Your task to perform on an android device: install app "Duolingo: language lessons" Image 0: 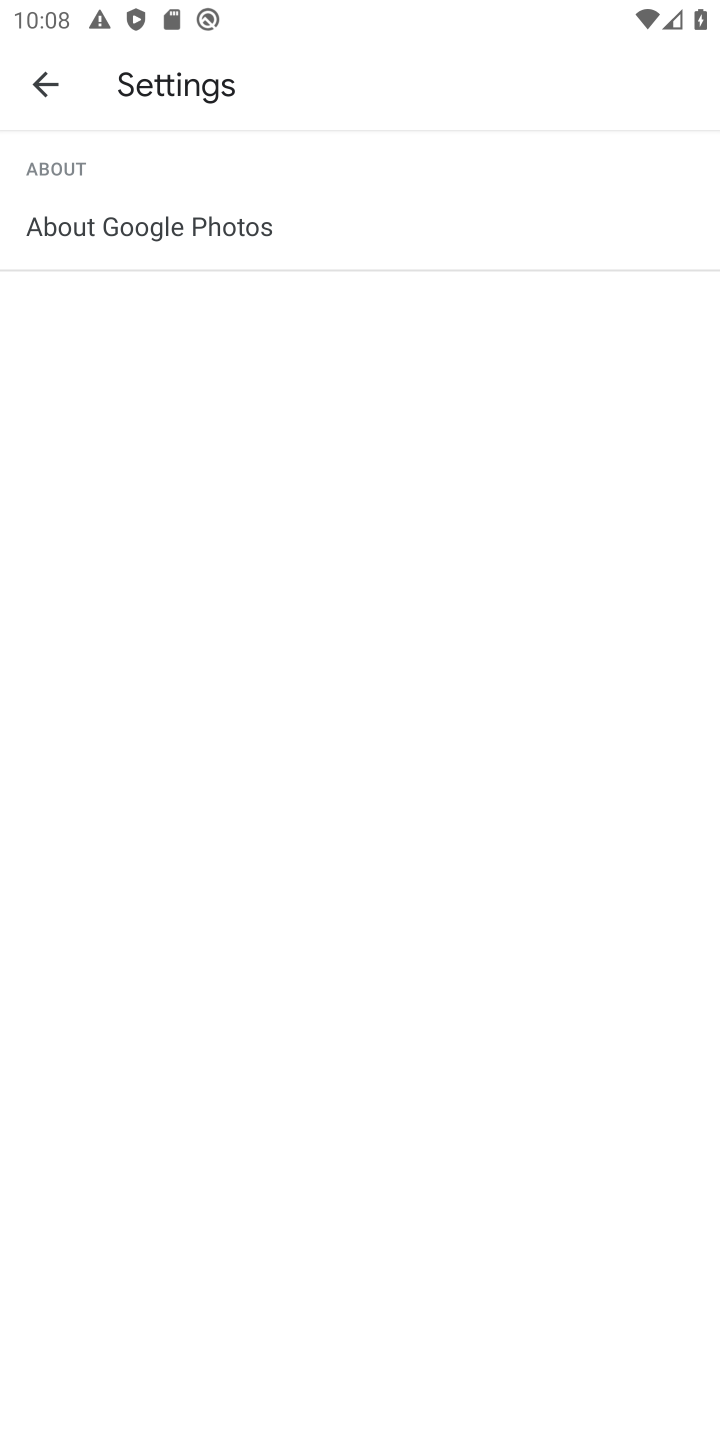
Step 0: press home button
Your task to perform on an android device: install app "Duolingo: language lessons" Image 1: 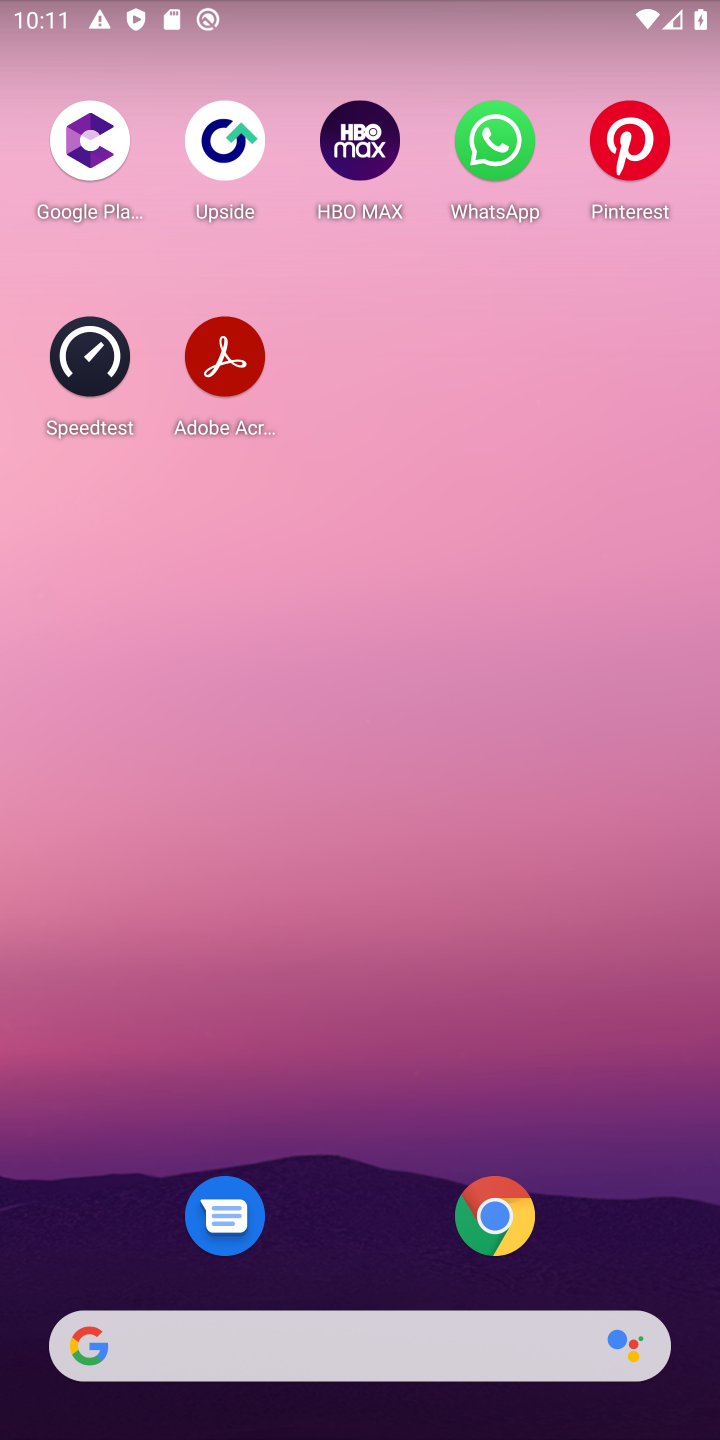
Step 1: drag from (455, 1282) to (543, 196)
Your task to perform on an android device: install app "Duolingo: language lessons" Image 2: 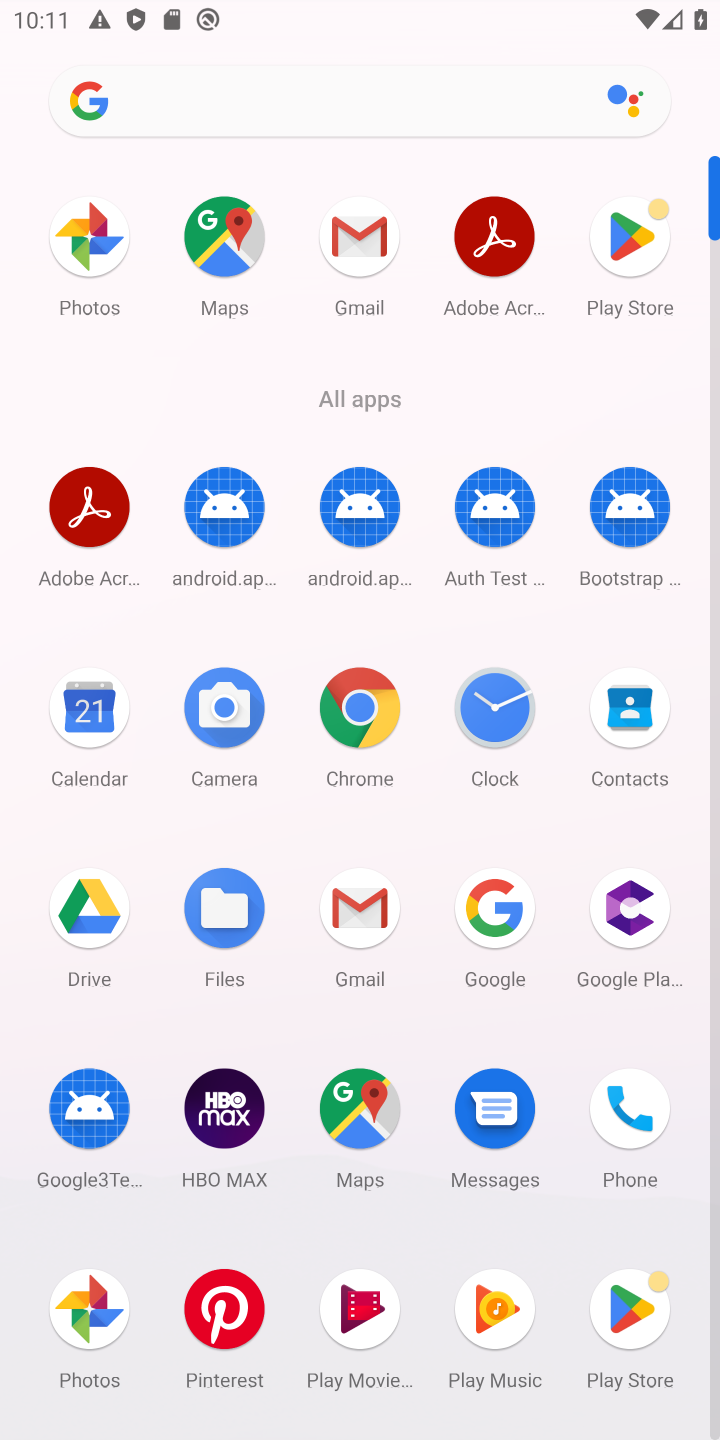
Step 2: click (638, 244)
Your task to perform on an android device: install app "Duolingo: language lessons" Image 3: 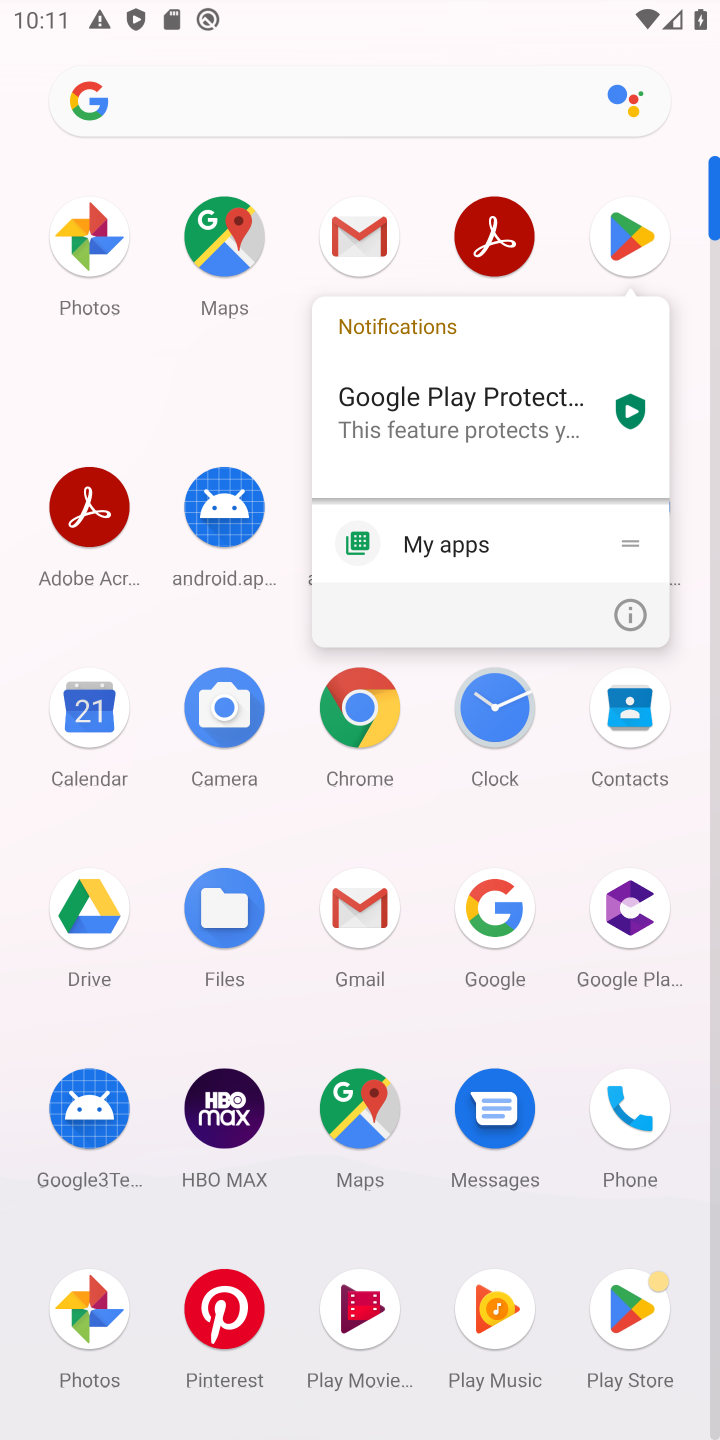
Step 3: click (638, 246)
Your task to perform on an android device: install app "Duolingo: language lessons" Image 4: 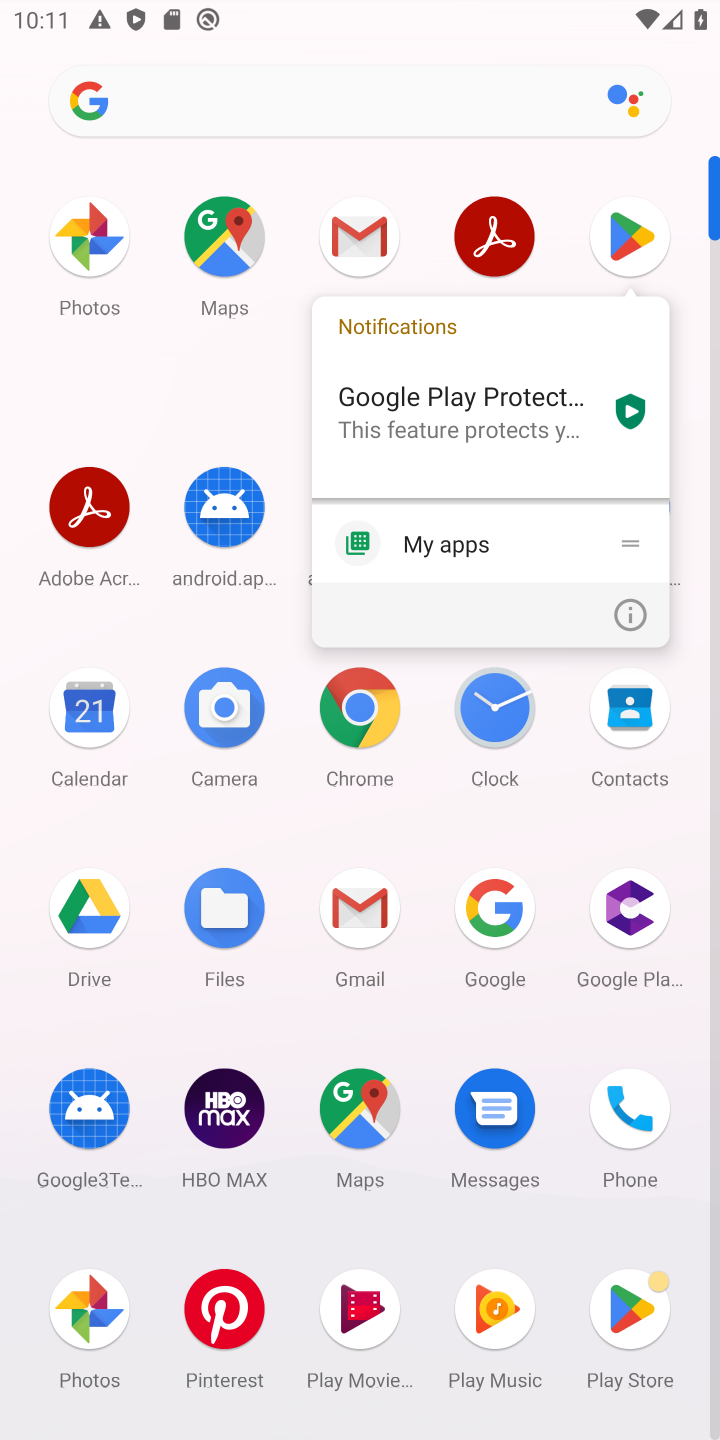
Step 4: click (638, 246)
Your task to perform on an android device: install app "Duolingo: language lessons" Image 5: 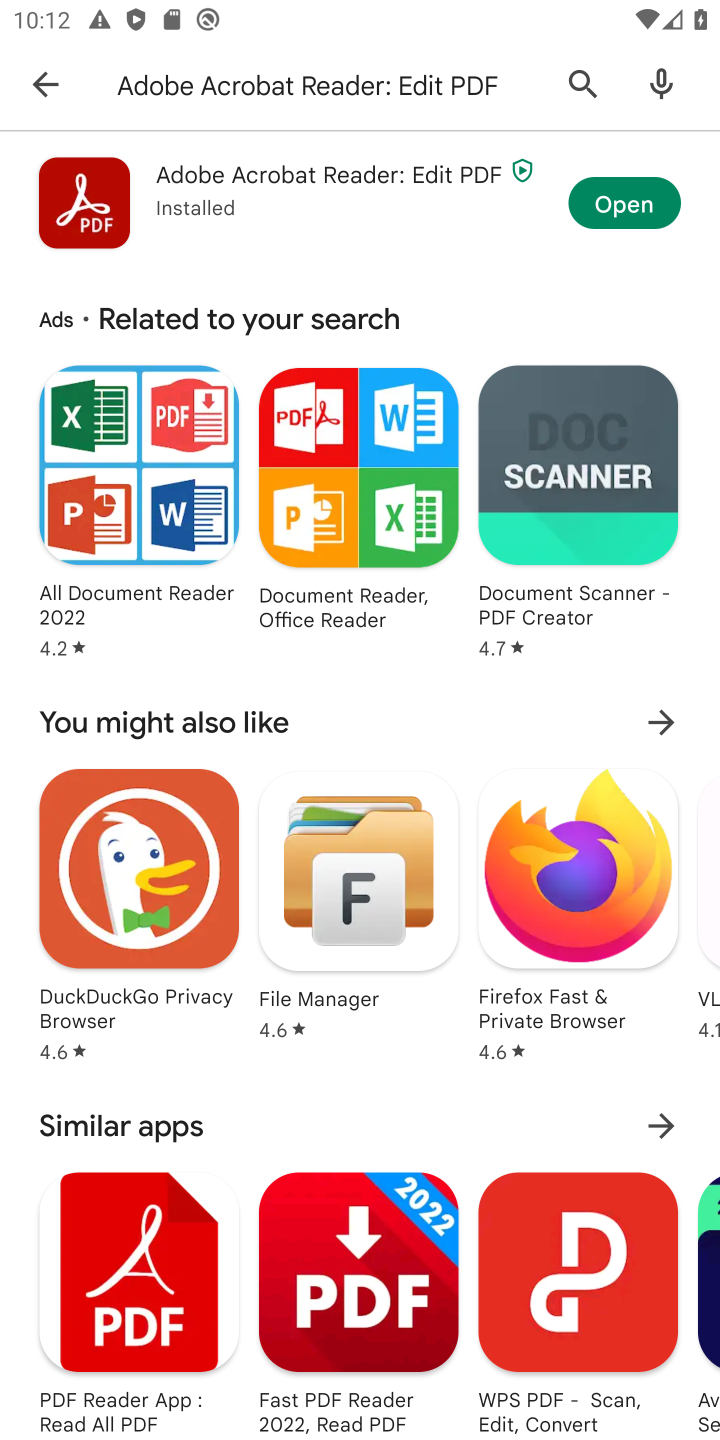
Step 5: press back button
Your task to perform on an android device: install app "Duolingo: language lessons" Image 6: 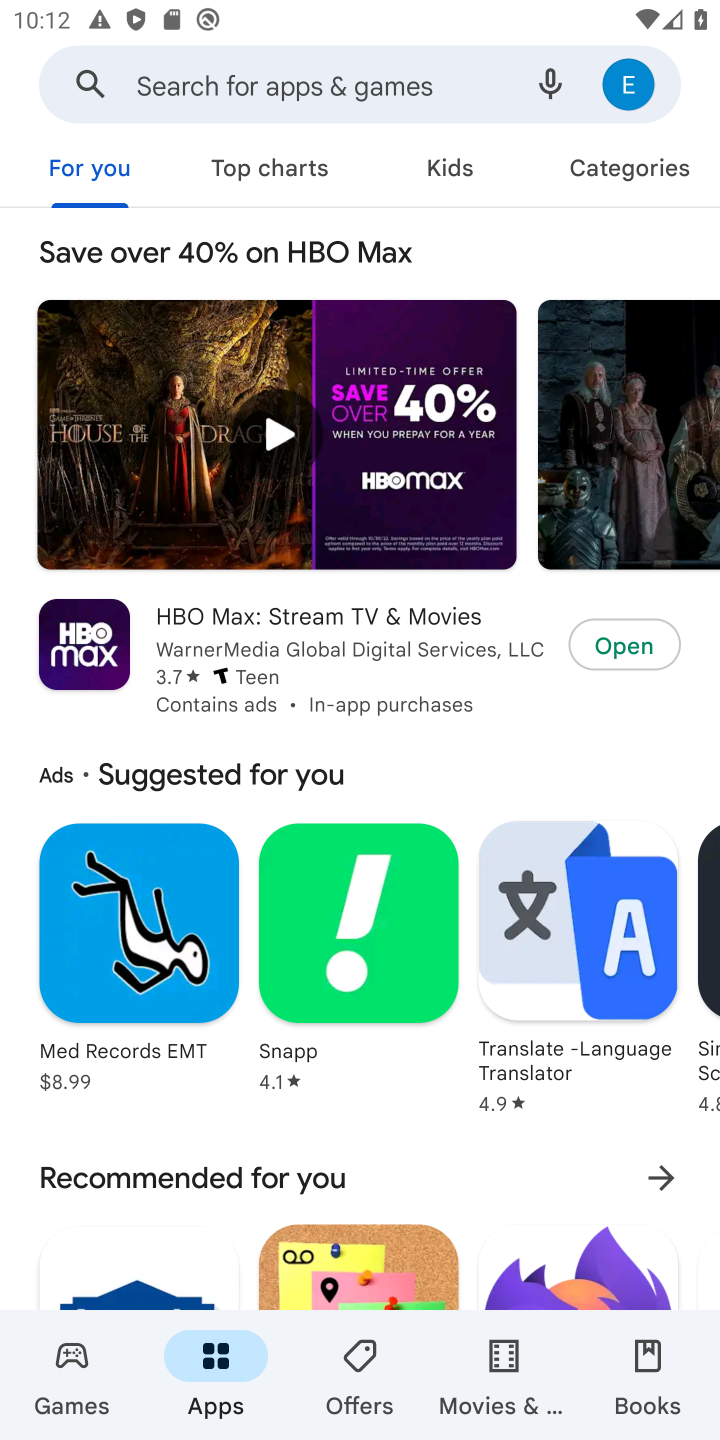
Step 6: click (255, 82)
Your task to perform on an android device: install app "Duolingo: language lessons" Image 7: 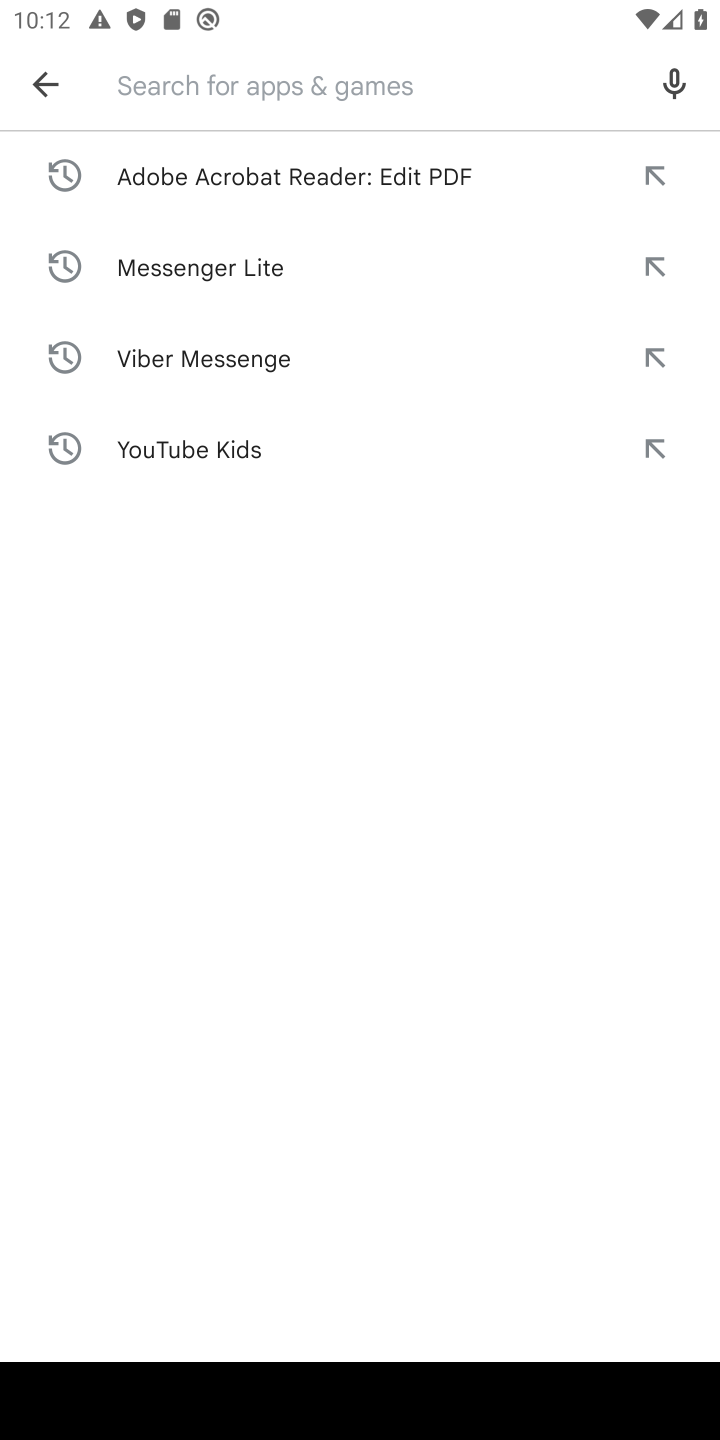
Step 7: type "Duolingo: language lessons""
Your task to perform on an android device: install app "Duolingo: language lessons" Image 8: 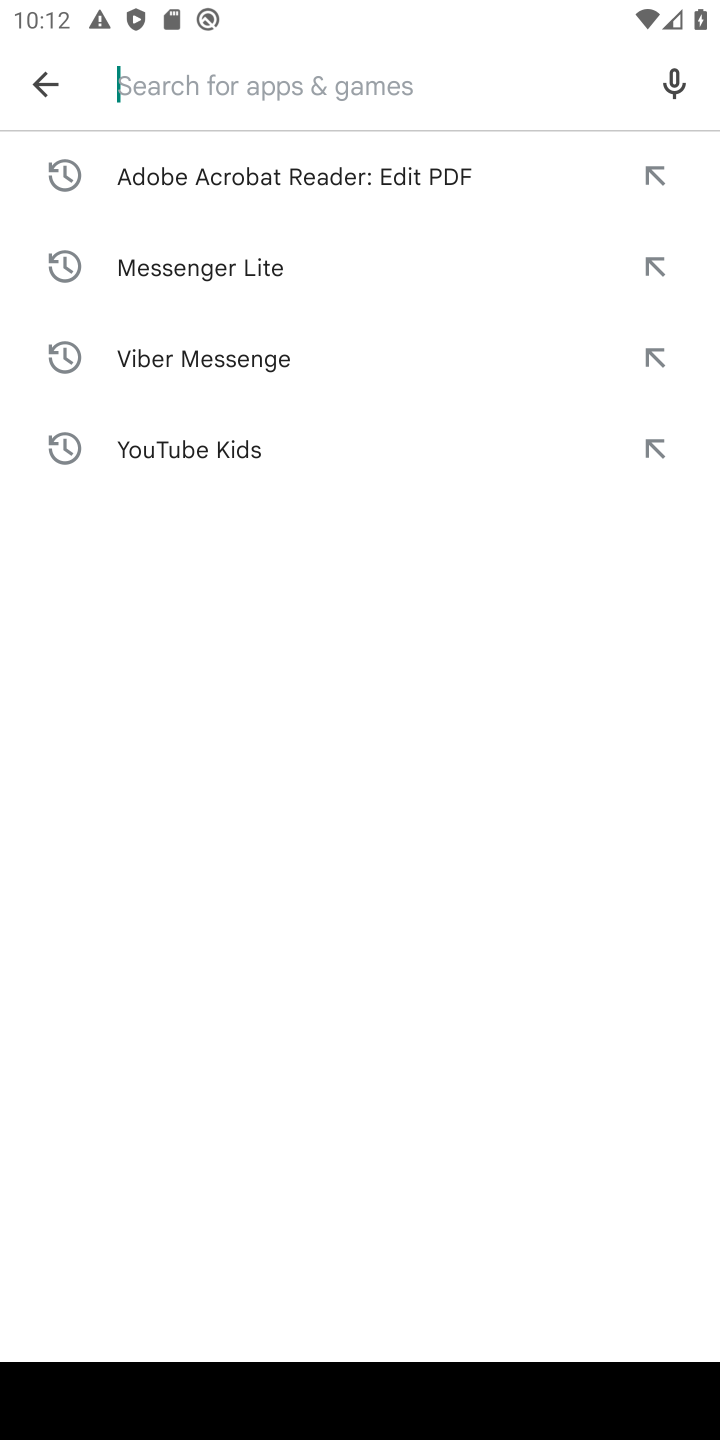
Step 8: press enter
Your task to perform on an android device: install app "Duolingo: language lessons" Image 9: 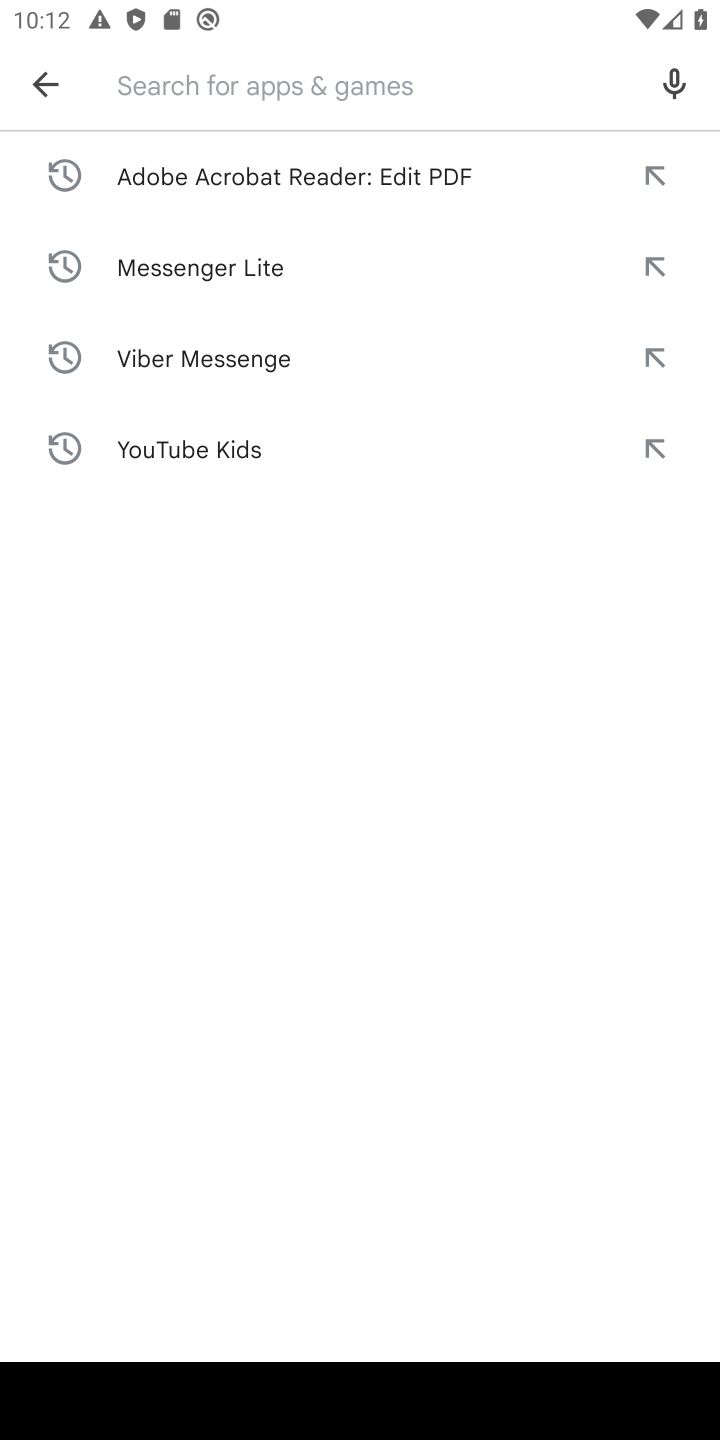
Step 9: press enter
Your task to perform on an android device: install app "Duolingo: language lessons" Image 10: 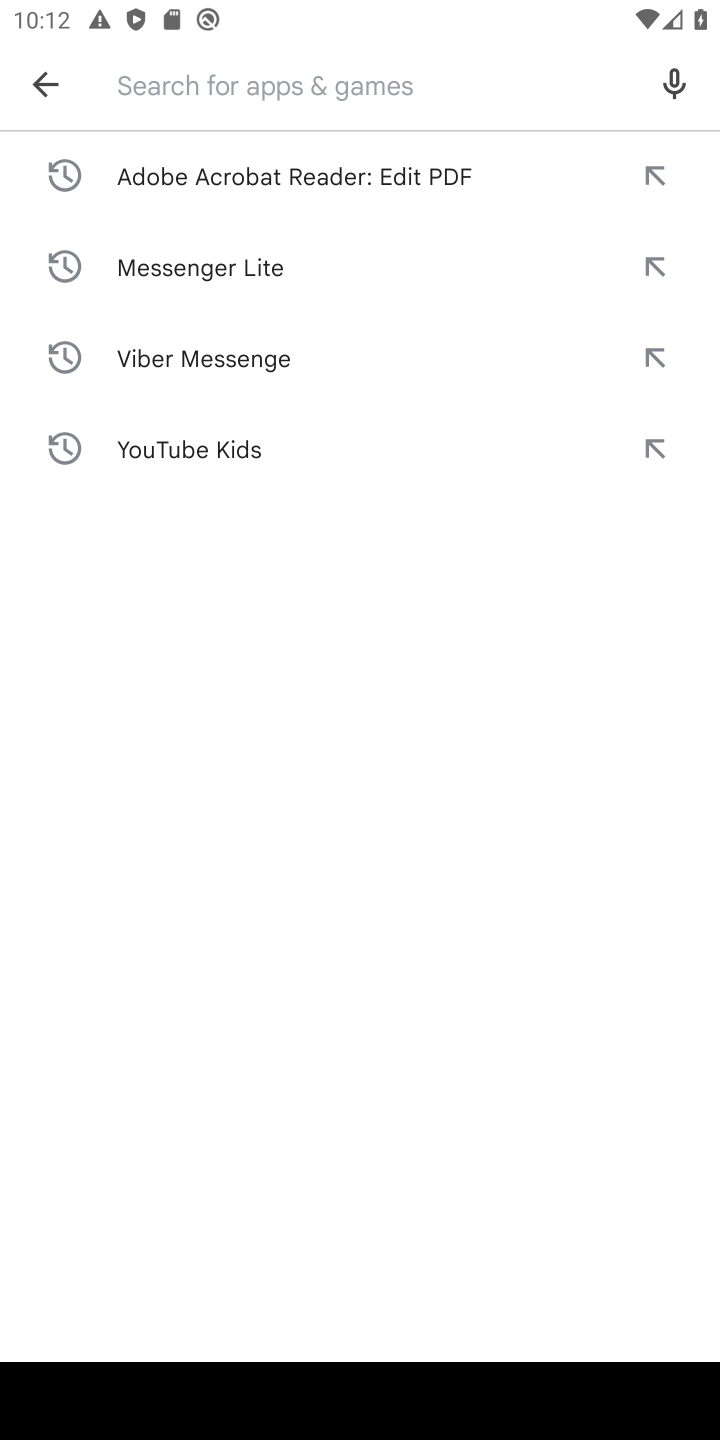
Step 10: type "Duolingo: language lessons"
Your task to perform on an android device: install app "Duolingo: language lessons" Image 11: 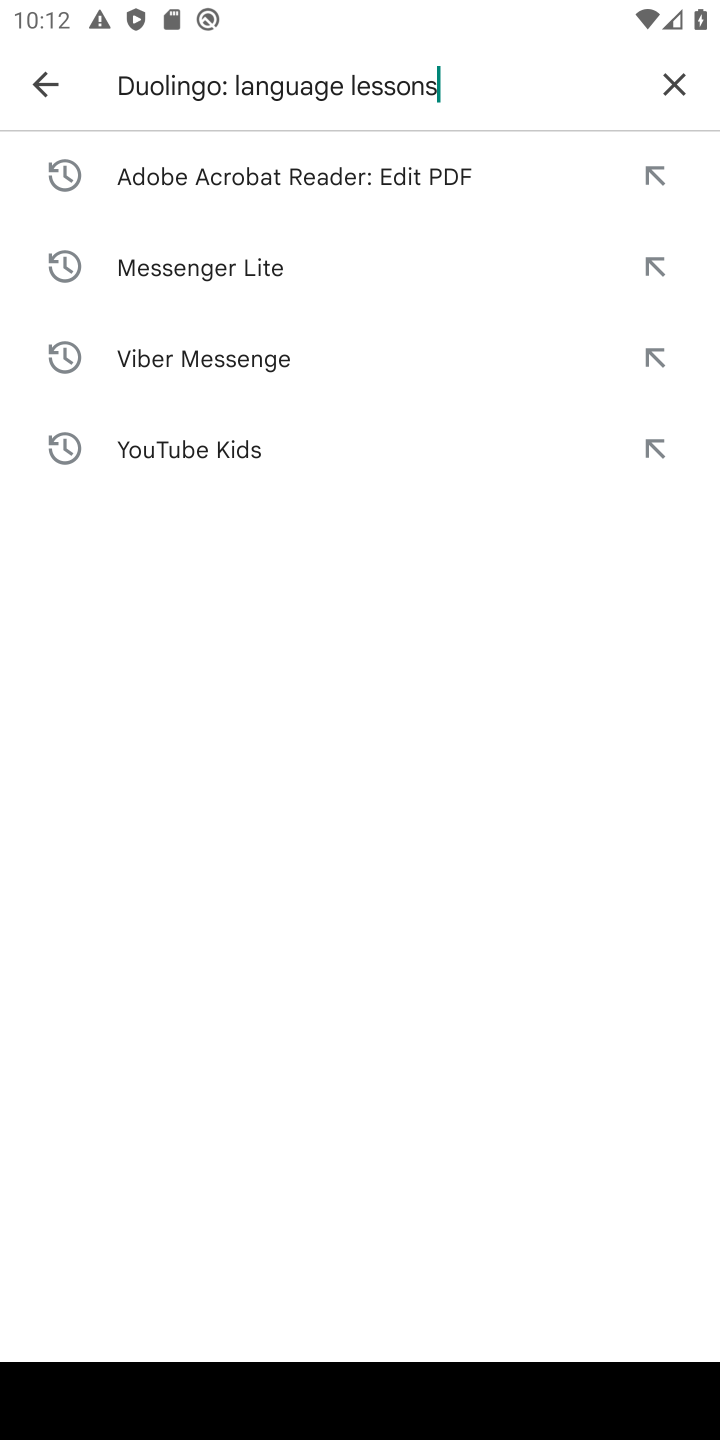
Step 11: press enter
Your task to perform on an android device: install app "Duolingo: language lessons" Image 12: 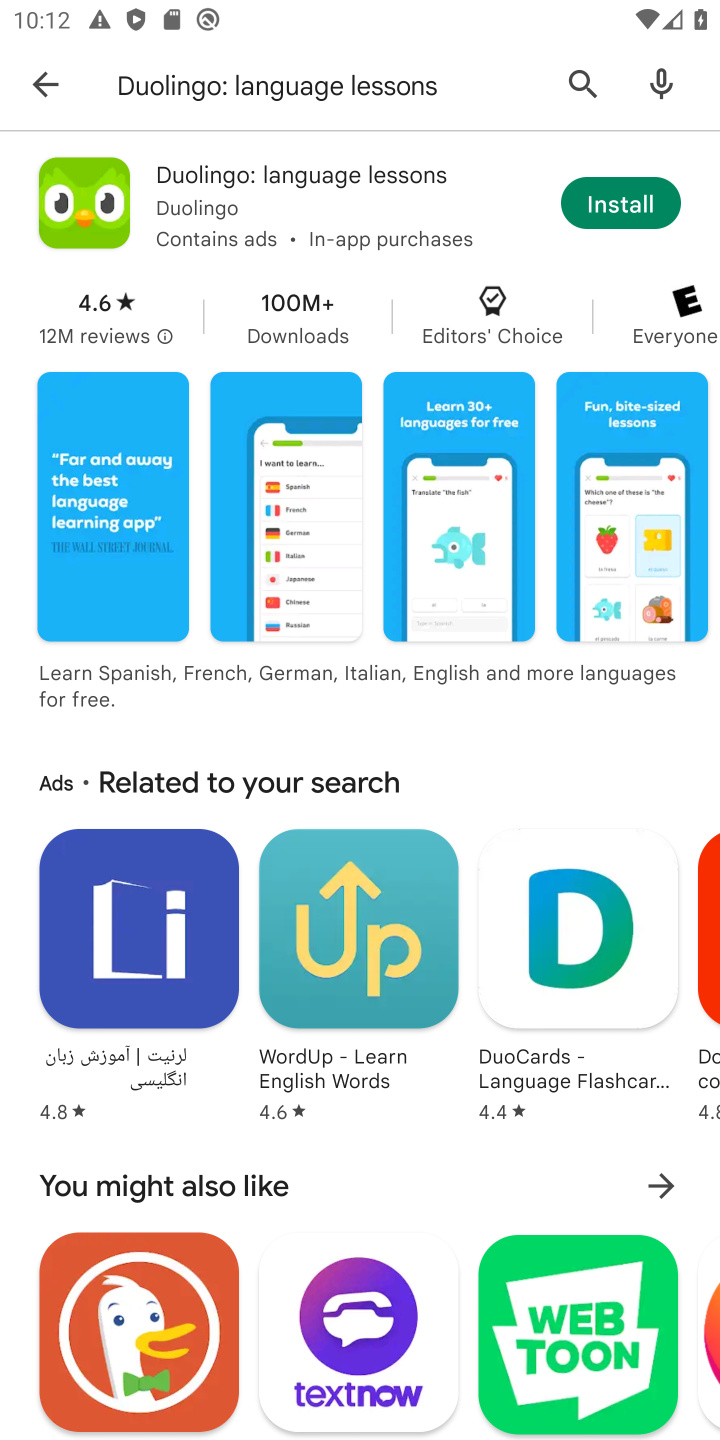
Step 12: click (651, 213)
Your task to perform on an android device: install app "Duolingo: language lessons" Image 13: 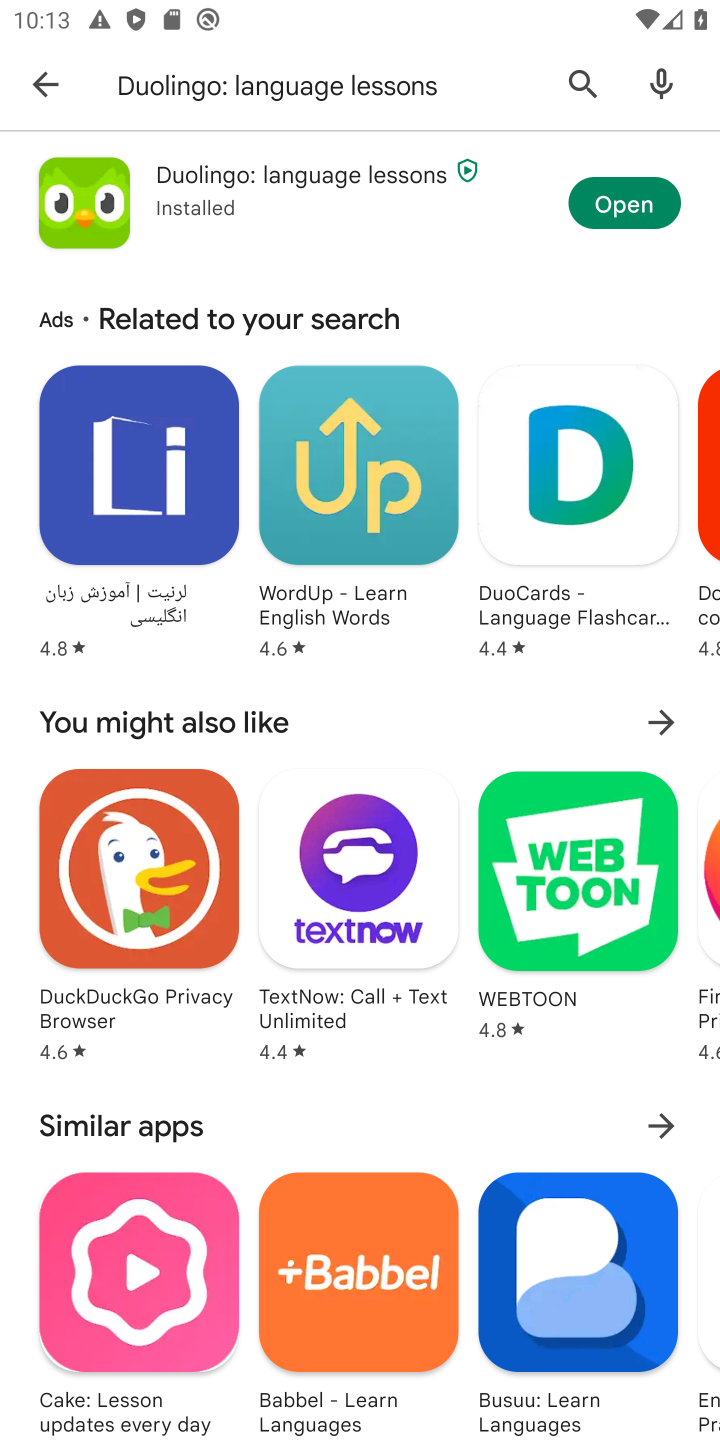
Step 13: click (624, 212)
Your task to perform on an android device: install app "Duolingo: language lessons" Image 14: 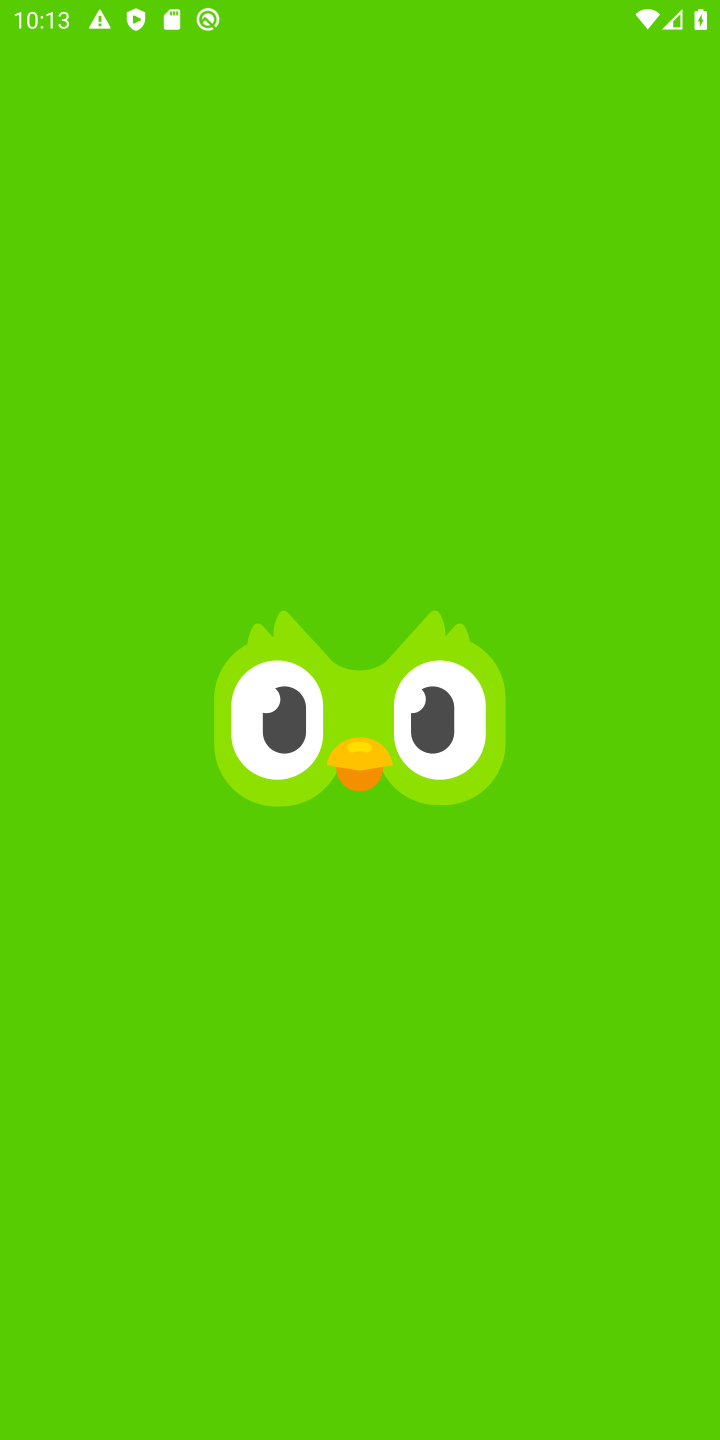
Step 14: task complete